Your task to perform on an android device: Go to privacy settings Image 0: 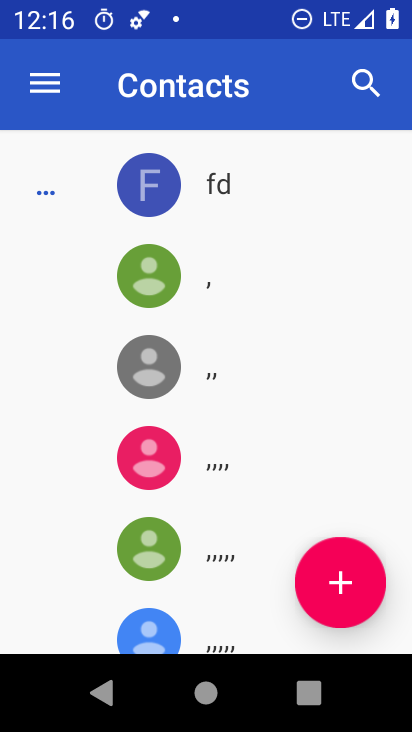
Step 0: press home button
Your task to perform on an android device: Go to privacy settings Image 1: 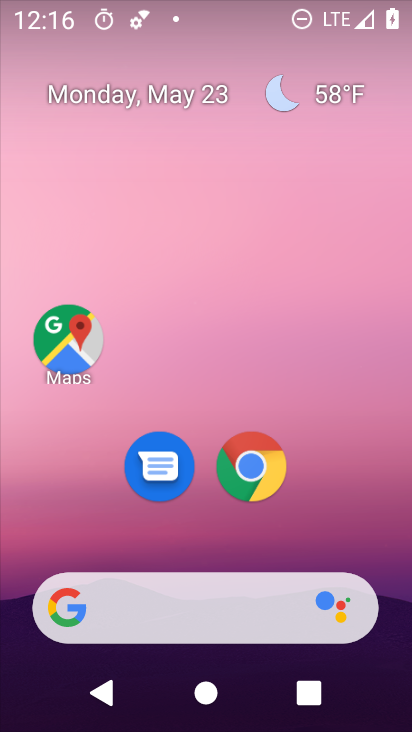
Step 1: click (251, 470)
Your task to perform on an android device: Go to privacy settings Image 2: 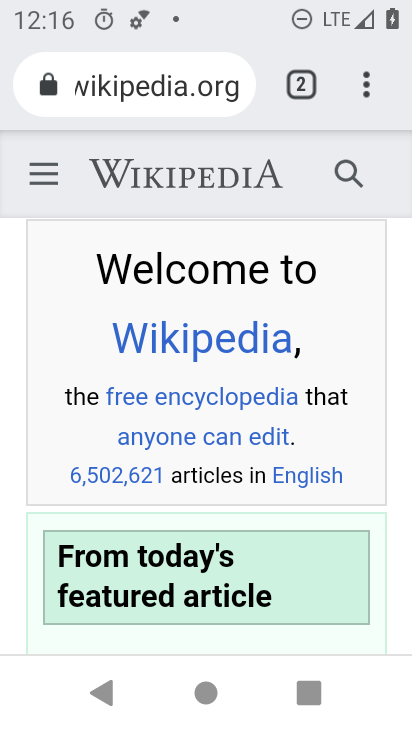
Step 2: click (359, 87)
Your task to perform on an android device: Go to privacy settings Image 3: 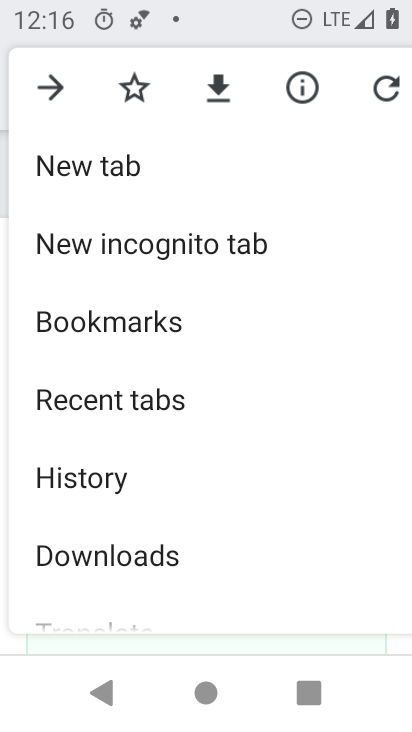
Step 3: drag from (194, 542) to (204, 102)
Your task to perform on an android device: Go to privacy settings Image 4: 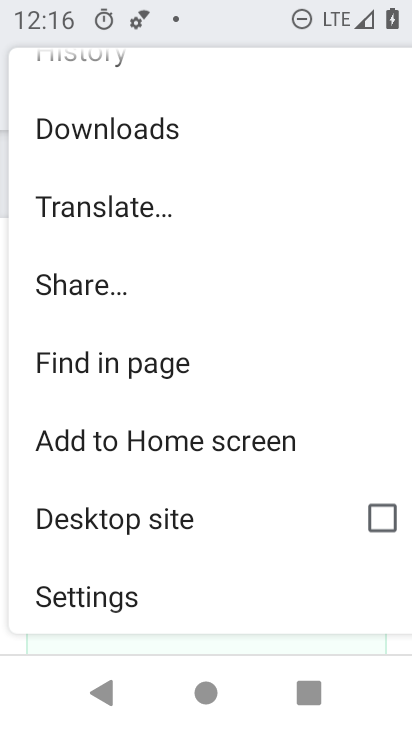
Step 4: click (114, 595)
Your task to perform on an android device: Go to privacy settings Image 5: 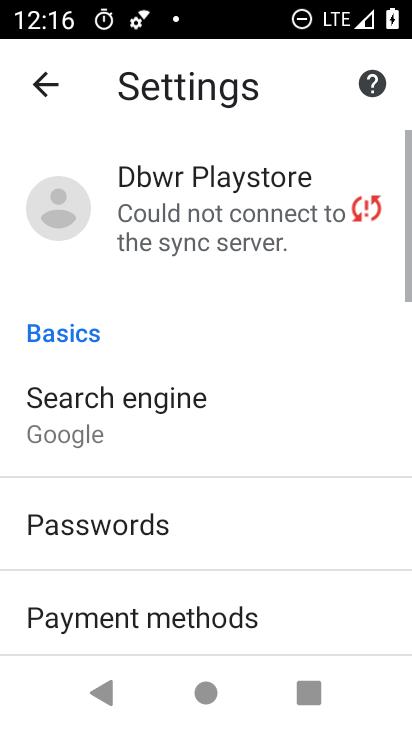
Step 5: drag from (219, 521) to (244, 83)
Your task to perform on an android device: Go to privacy settings Image 6: 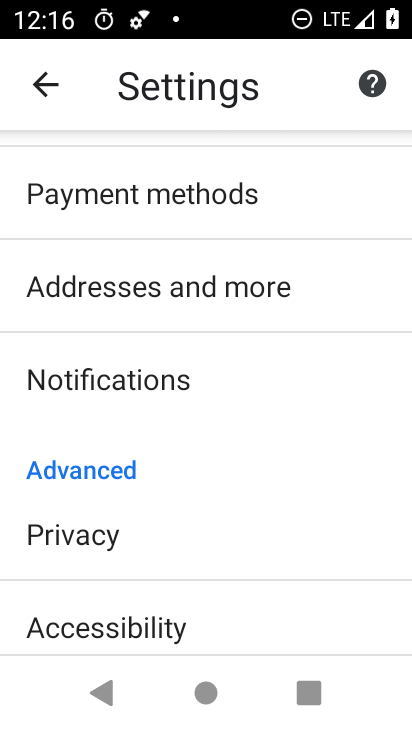
Step 6: click (78, 517)
Your task to perform on an android device: Go to privacy settings Image 7: 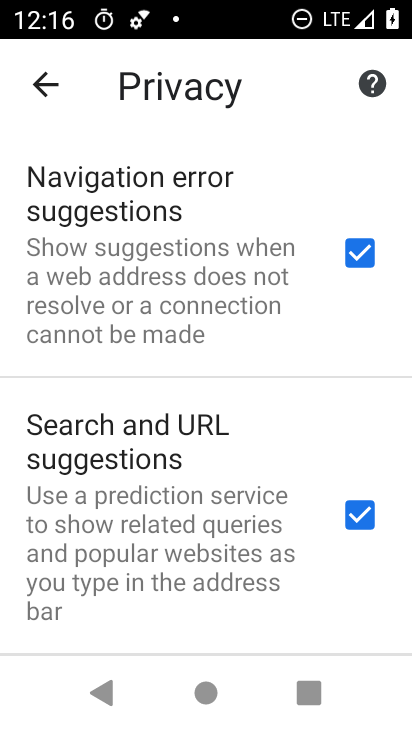
Step 7: task complete